Your task to perform on an android device: turn off wifi Image 0: 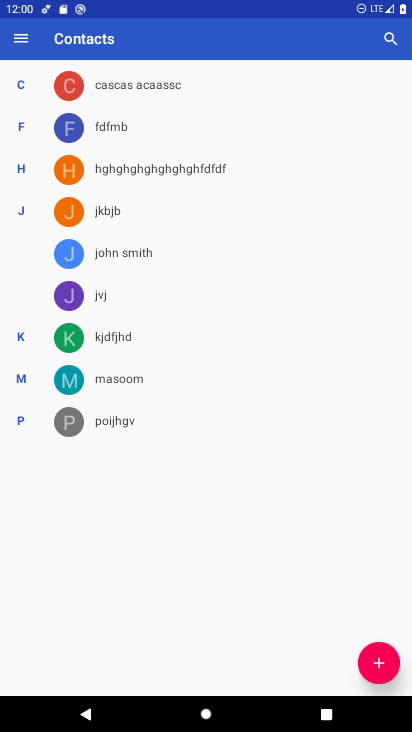
Step 0: drag from (260, 4) to (239, 652)
Your task to perform on an android device: turn off wifi Image 1: 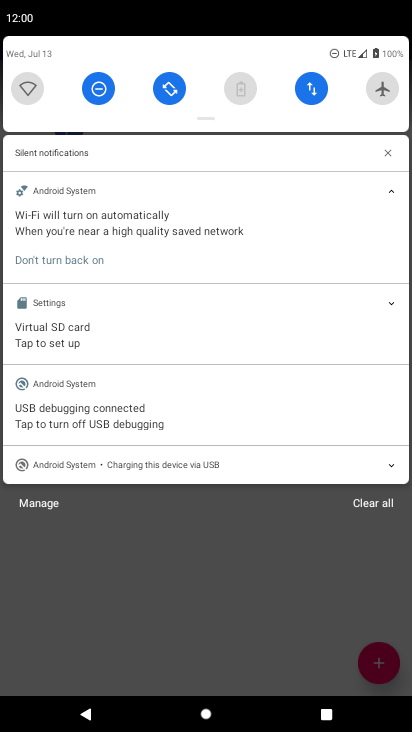
Step 1: task complete